Your task to perform on an android device: Go to Google Image 0: 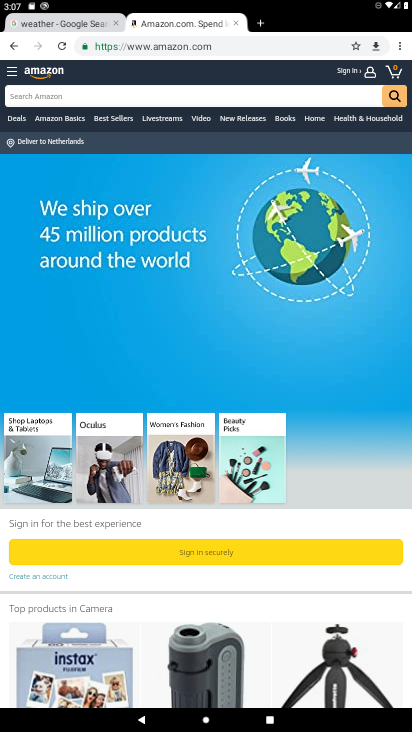
Step 0: press home button
Your task to perform on an android device: Go to Google Image 1: 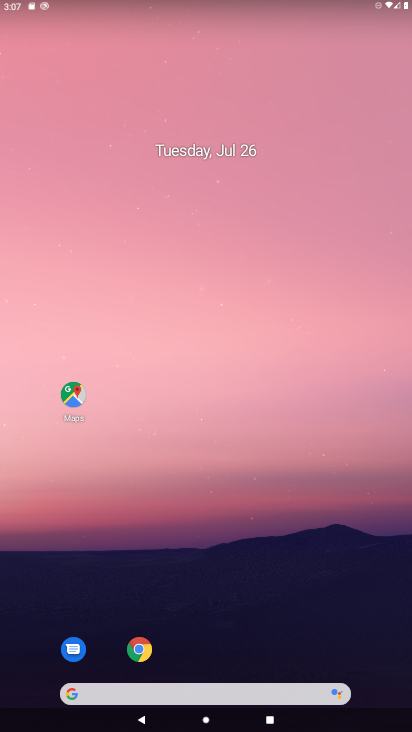
Step 1: drag from (206, 684) to (183, 195)
Your task to perform on an android device: Go to Google Image 2: 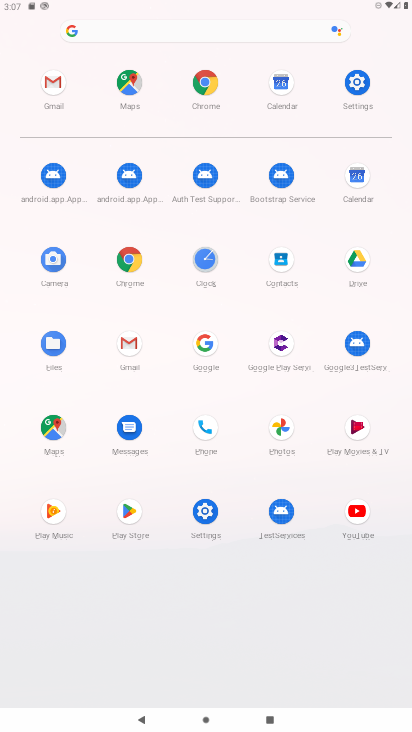
Step 2: click (210, 345)
Your task to perform on an android device: Go to Google Image 3: 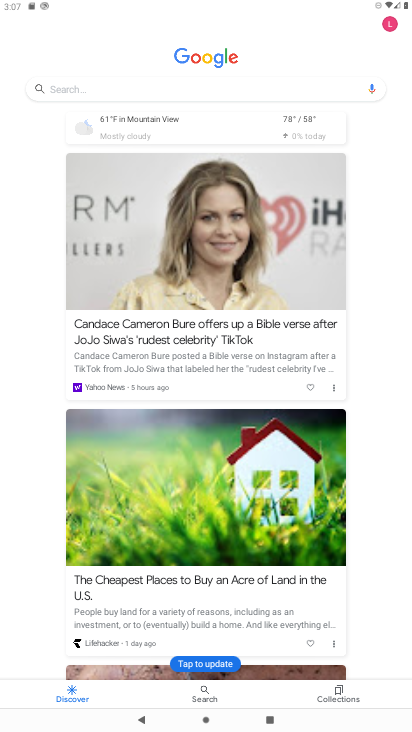
Step 3: task complete